Your task to perform on an android device: Search for Italian restaurants on Maps Image 0: 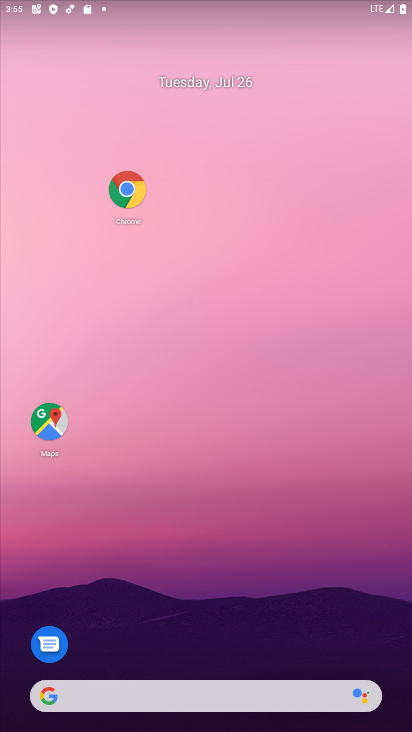
Step 0: drag from (141, 667) to (199, 263)
Your task to perform on an android device: Search for Italian restaurants on Maps Image 1: 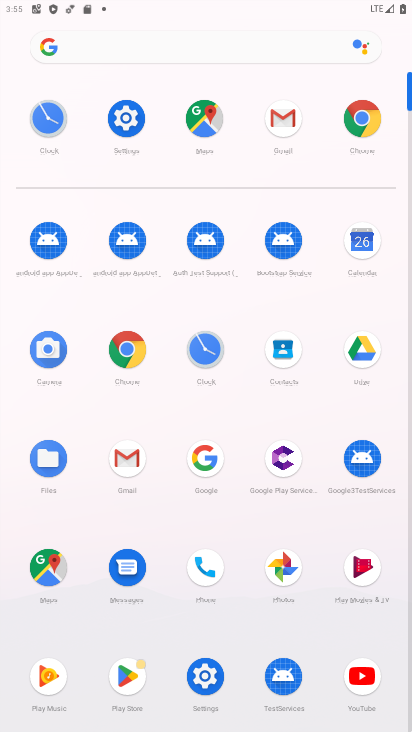
Step 1: click (51, 555)
Your task to perform on an android device: Search for Italian restaurants on Maps Image 2: 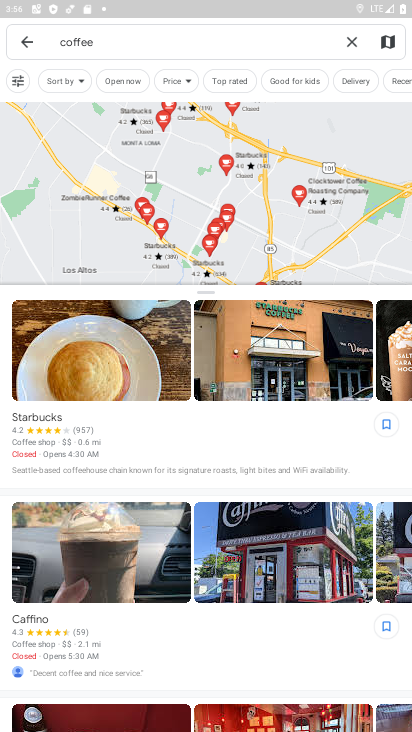
Step 2: click (110, 30)
Your task to perform on an android device: Search for Italian restaurants on Maps Image 3: 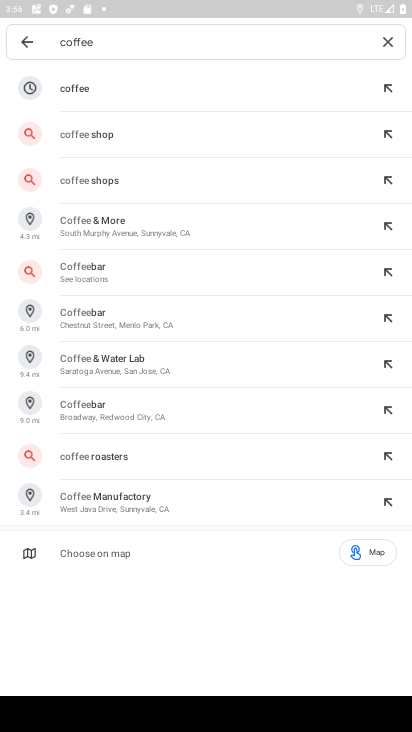
Step 3: click (57, 457)
Your task to perform on an android device: Search for Italian restaurants on Maps Image 4: 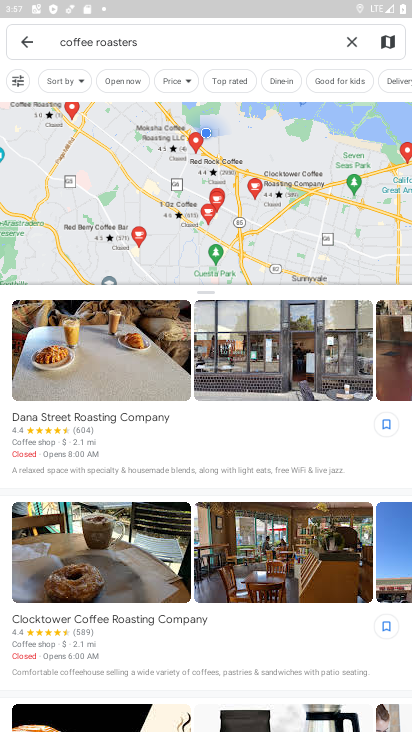
Step 4: task complete